Your task to perform on an android device: check battery use Image 0: 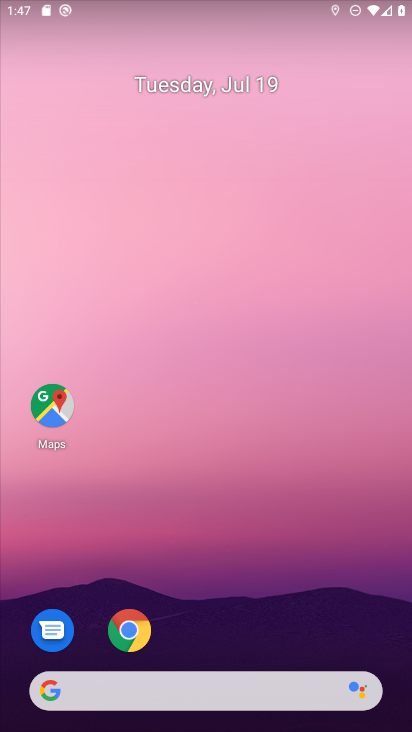
Step 0: press home button
Your task to perform on an android device: check battery use Image 1: 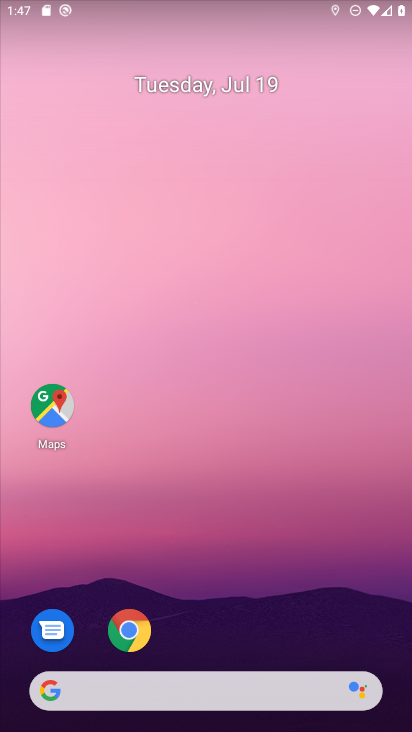
Step 1: drag from (160, 700) to (234, 116)
Your task to perform on an android device: check battery use Image 2: 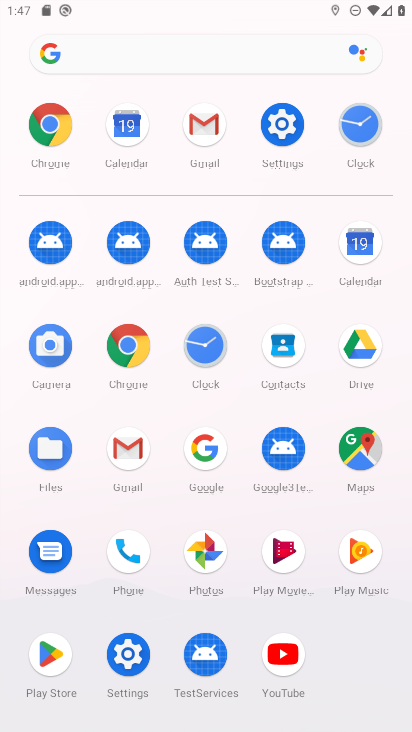
Step 2: click (276, 132)
Your task to perform on an android device: check battery use Image 3: 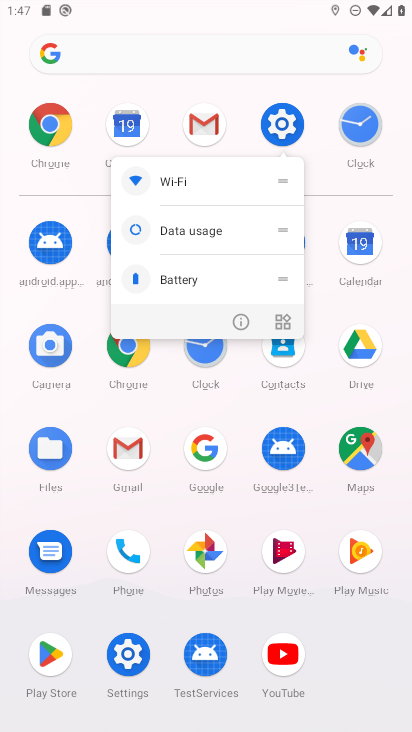
Step 3: click (289, 118)
Your task to perform on an android device: check battery use Image 4: 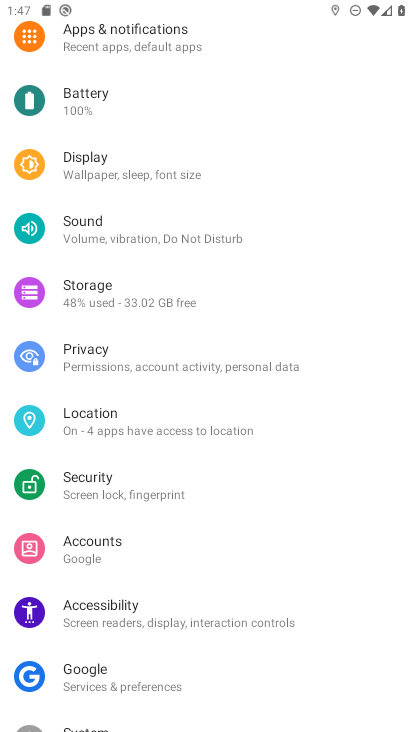
Step 4: click (82, 103)
Your task to perform on an android device: check battery use Image 5: 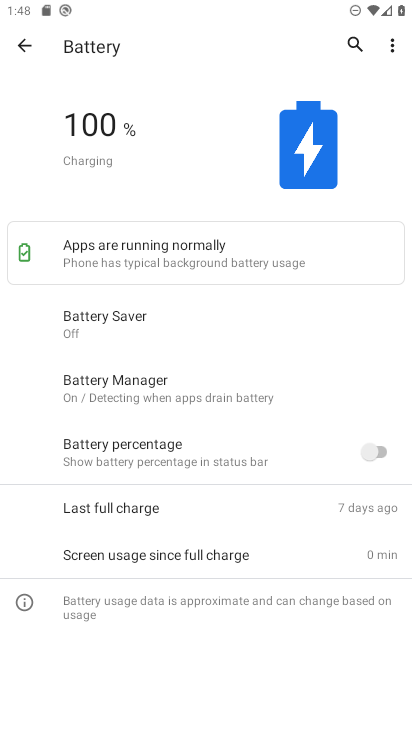
Step 5: click (392, 46)
Your task to perform on an android device: check battery use Image 6: 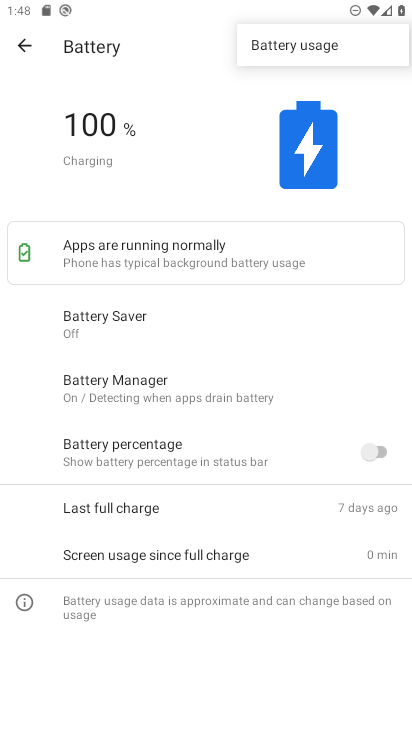
Step 6: click (278, 41)
Your task to perform on an android device: check battery use Image 7: 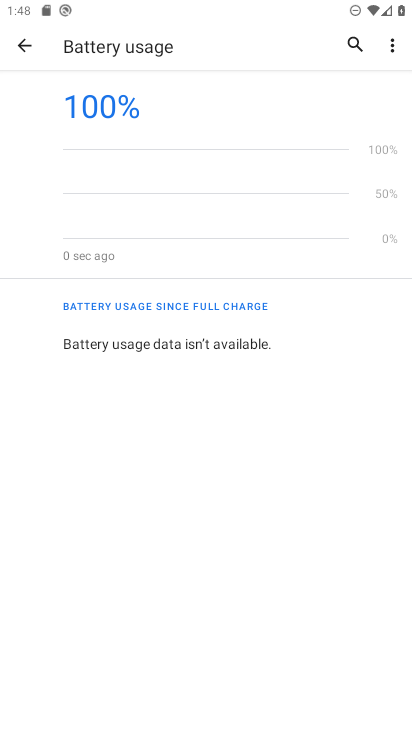
Step 7: task complete